Your task to perform on an android device: check the backup settings in the google photos Image 0: 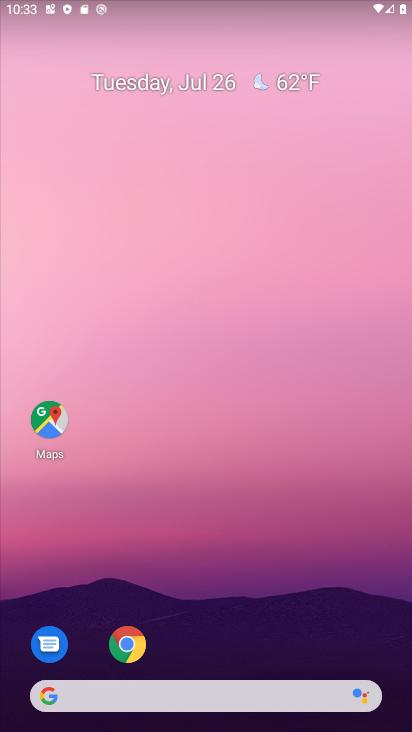
Step 0: drag from (256, 619) to (348, 1)
Your task to perform on an android device: check the backup settings in the google photos Image 1: 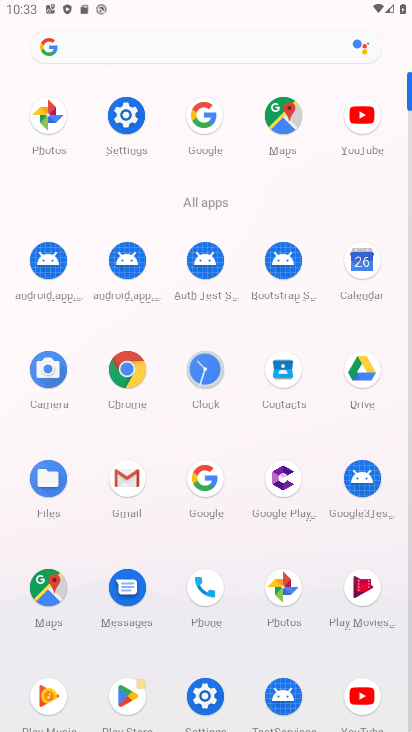
Step 1: click (281, 587)
Your task to perform on an android device: check the backup settings in the google photos Image 2: 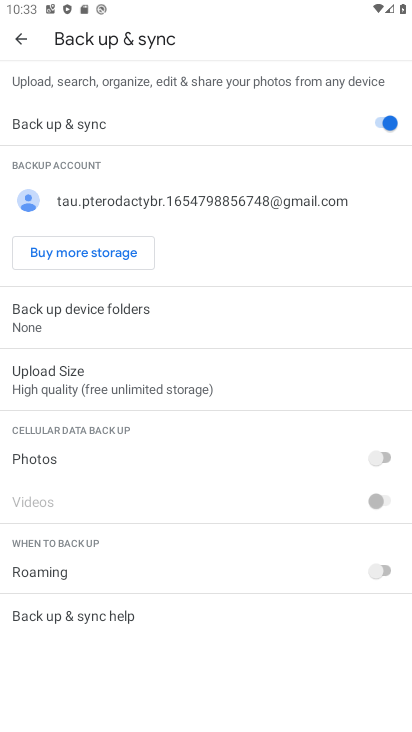
Step 2: task complete